Your task to perform on an android device: turn on data saver in the chrome app Image 0: 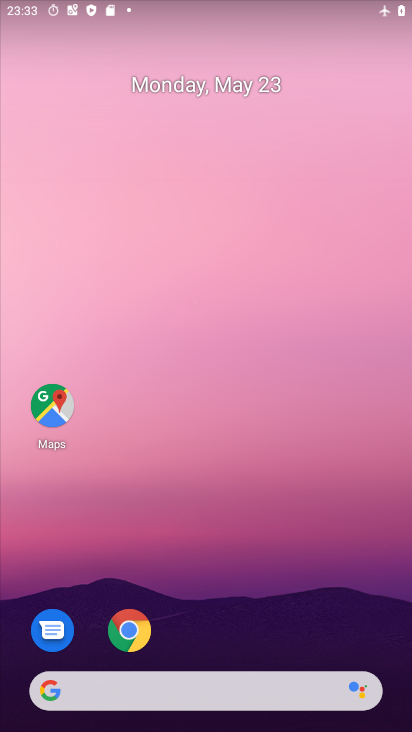
Step 0: click (138, 635)
Your task to perform on an android device: turn on data saver in the chrome app Image 1: 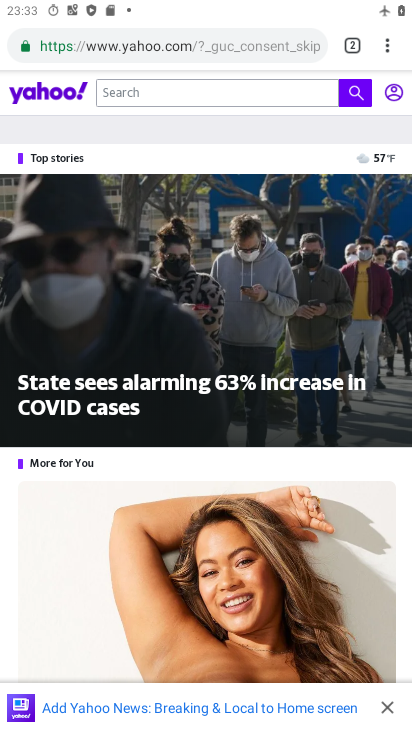
Step 1: click (387, 51)
Your task to perform on an android device: turn on data saver in the chrome app Image 2: 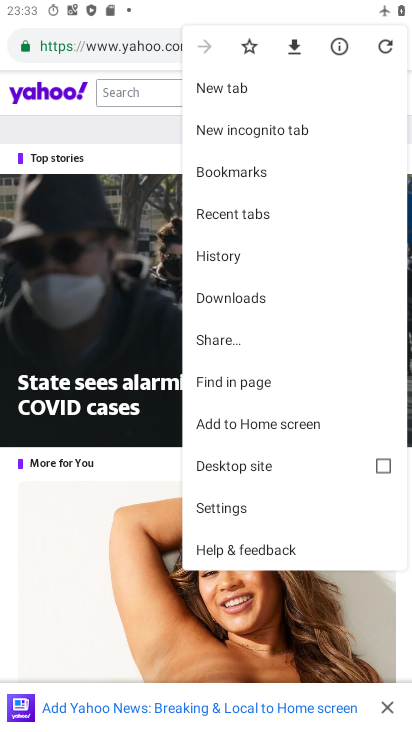
Step 2: click (228, 509)
Your task to perform on an android device: turn on data saver in the chrome app Image 3: 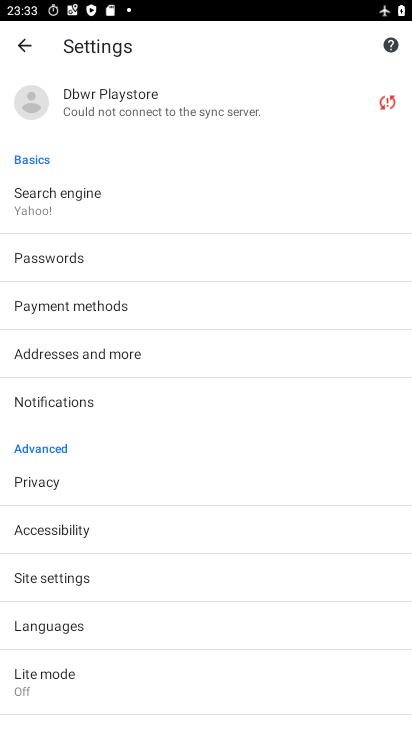
Step 3: click (47, 680)
Your task to perform on an android device: turn on data saver in the chrome app Image 4: 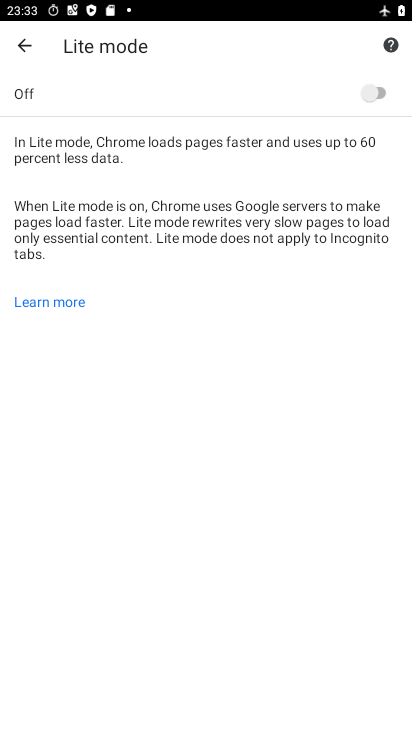
Step 4: click (371, 91)
Your task to perform on an android device: turn on data saver in the chrome app Image 5: 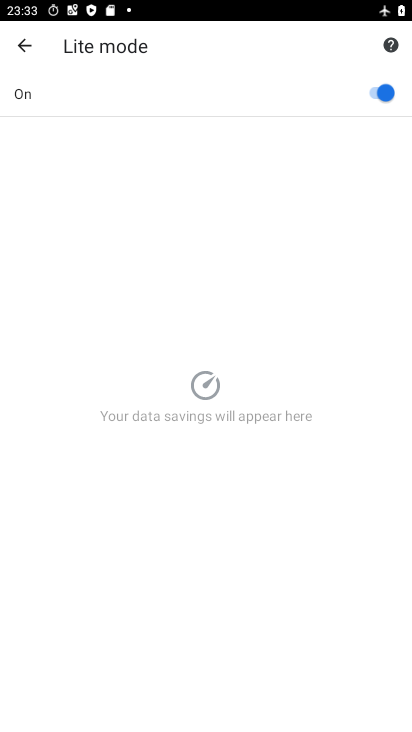
Step 5: task complete